Your task to perform on an android device: stop showing notifications on the lock screen Image 0: 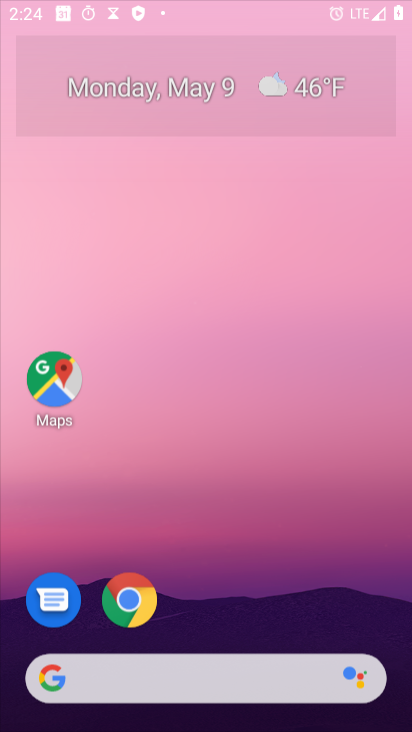
Step 0: drag from (166, 441) to (151, 145)
Your task to perform on an android device: stop showing notifications on the lock screen Image 1: 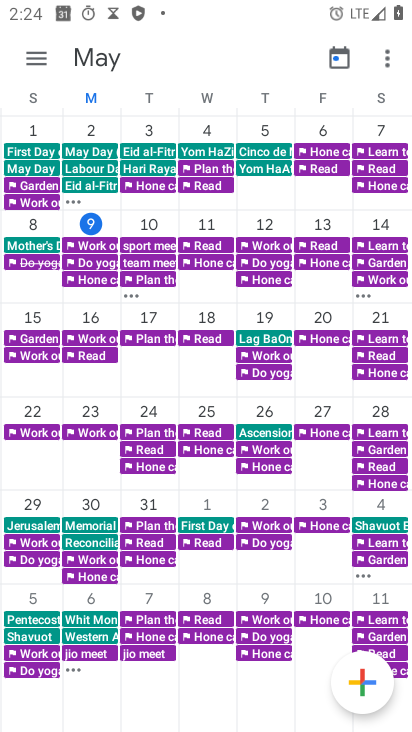
Step 1: press back button
Your task to perform on an android device: stop showing notifications on the lock screen Image 2: 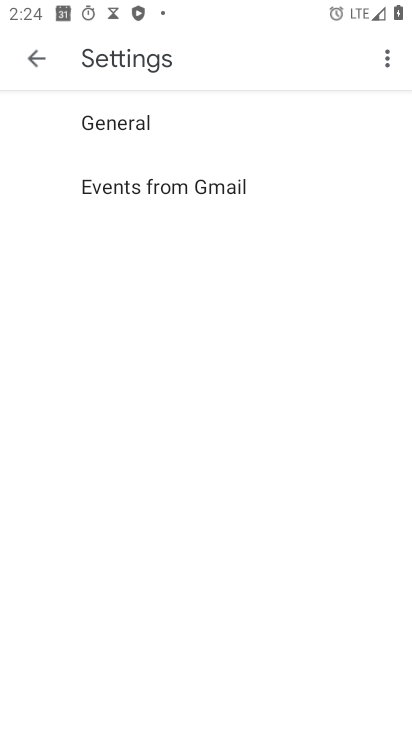
Step 2: press home button
Your task to perform on an android device: stop showing notifications on the lock screen Image 3: 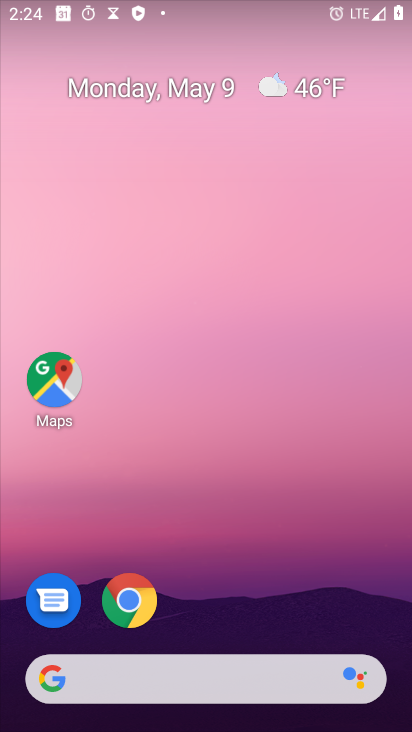
Step 3: drag from (143, 666) to (160, 62)
Your task to perform on an android device: stop showing notifications on the lock screen Image 4: 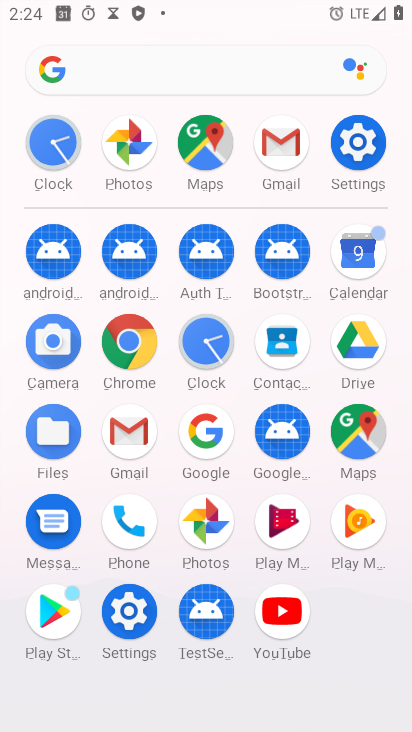
Step 4: click (354, 147)
Your task to perform on an android device: stop showing notifications on the lock screen Image 5: 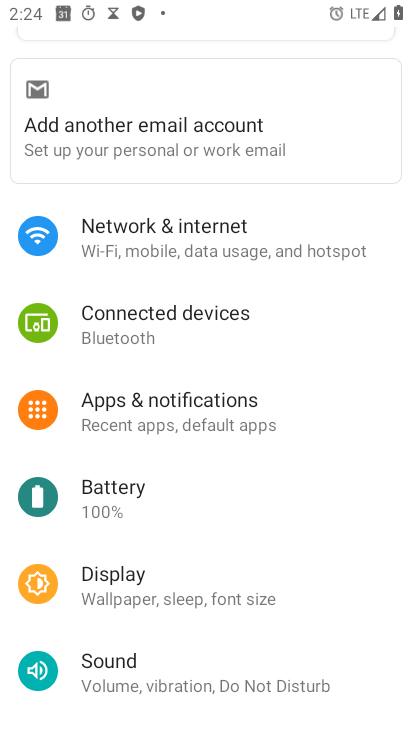
Step 5: click (144, 410)
Your task to perform on an android device: stop showing notifications on the lock screen Image 6: 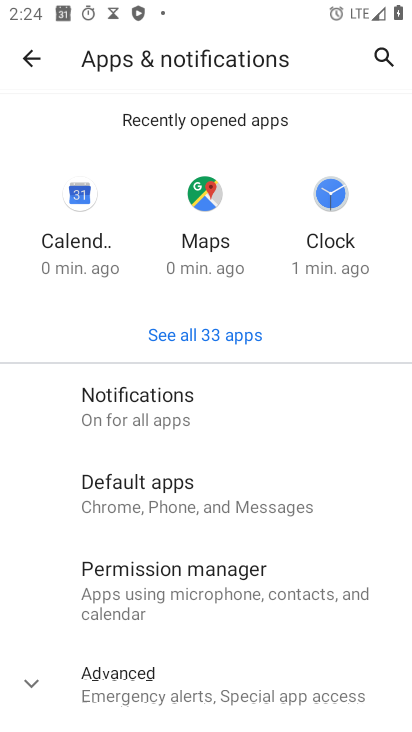
Step 6: click (184, 423)
Your task to perform on an android device: stop showing notifications on the lock screen Image 7: 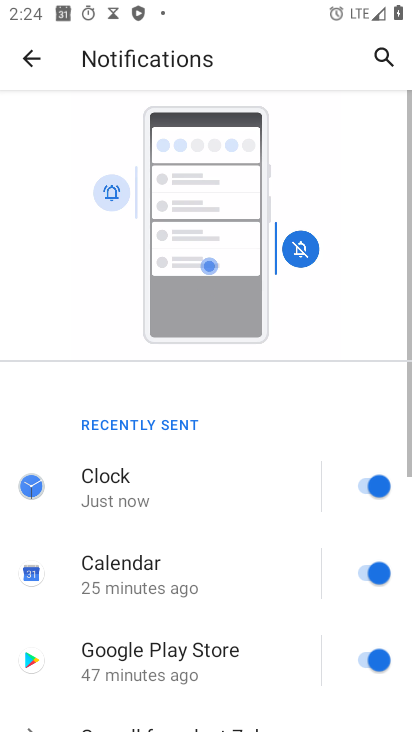
Step 7: drag from (177, 656) to (212, 84)
Your task to perform on an android device: stop showing notifications on the lock screen Image 8: 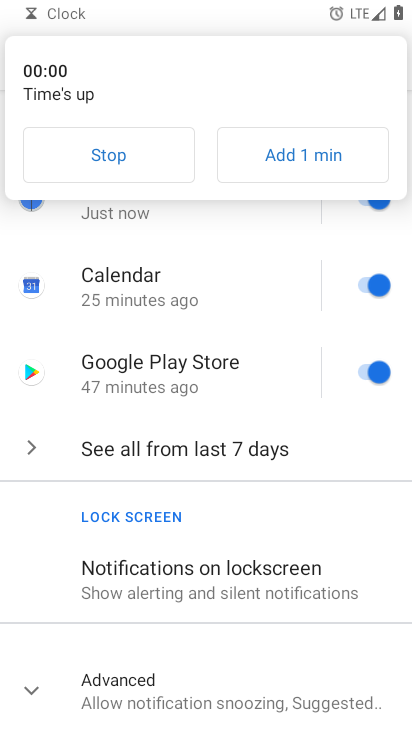
Step 8: click (155, 668)
Your task to perform on an android device: stop showing notifications on the lock screen Image 9: 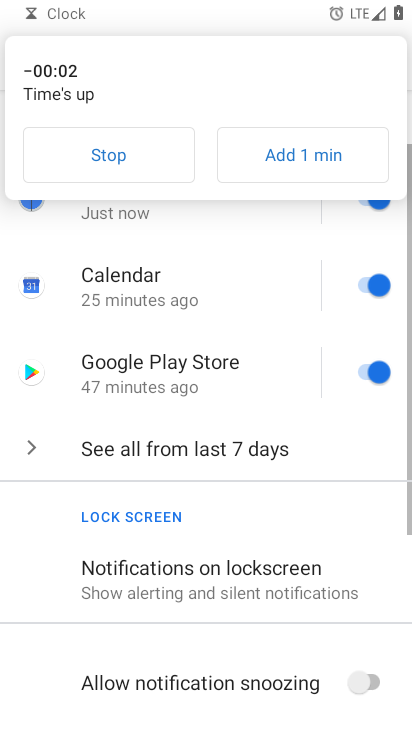
Step 9: drag from (200, 588) to (264, 132)
Your task to perform on an android device: stop showing notifications on the lock screen Image 10: 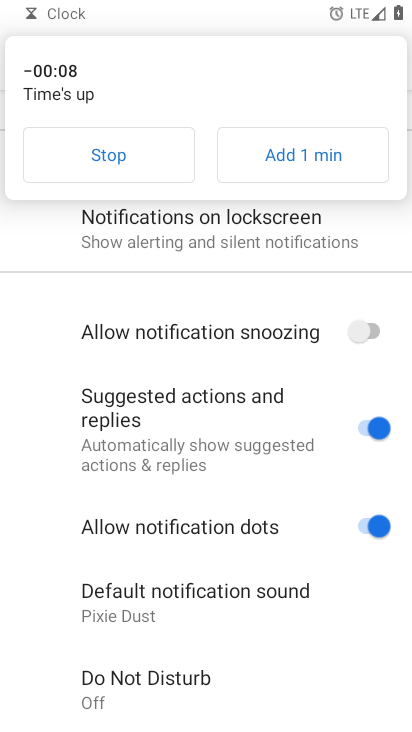
Step 10: drag from (259, 408) to (260, 593)
Your task to perform on an android device: stop showing notifications on the lock screen Image 11: 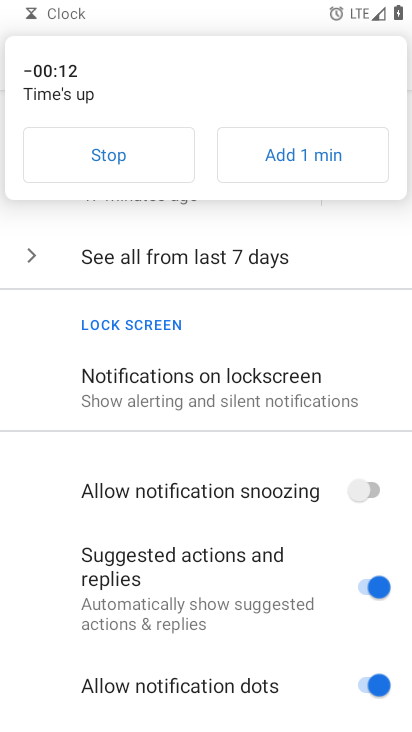
Step 11: drag from (222, 559) to (227, 160)
Your task to perform on an android device: stop showing notifications on the lock screen Image 12: 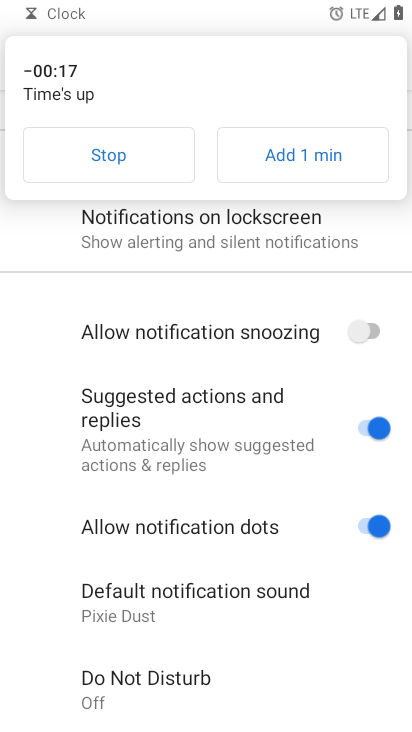
Step 12: click (172, 253)
Your task to perform on an android device: stop showing notifications on the lock screen Image 13: 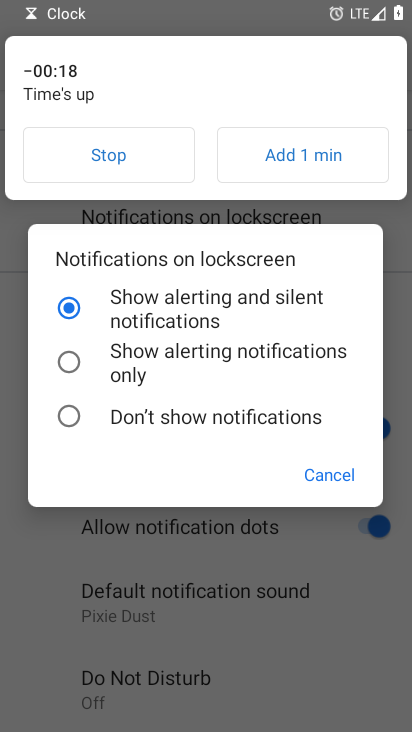
Step 13: click (128, 142)
Your task to perform on an android device: stop showing notifications on the lock screen Image 14: 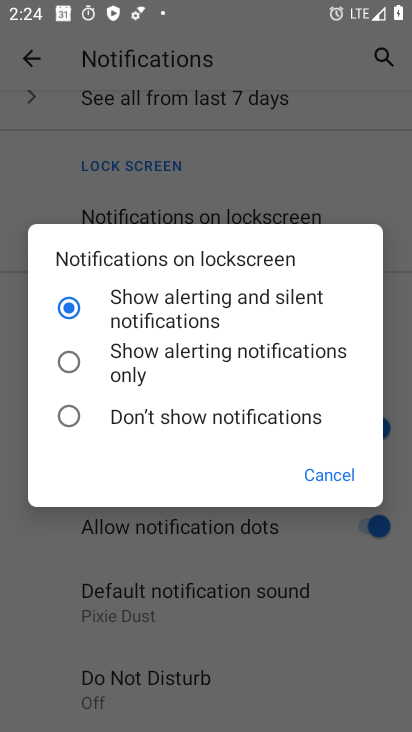
Step 14: click (173, 418)
Your task to perform on an android device: stop showing notifications on the lock screen Image 15: 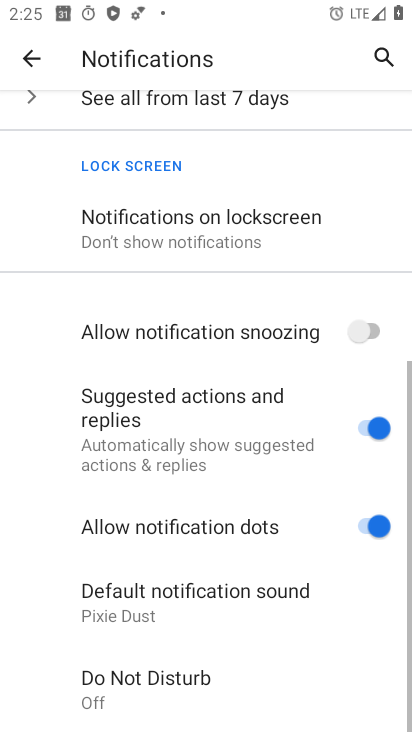
Step 15: task complete